Your task to perform on an android device: move an email to a new category in the gmail app Image 0: 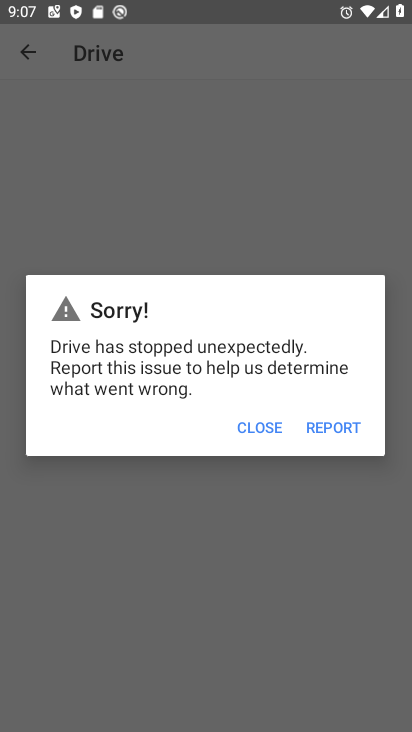
Step 0: press home button
Your task to perform on an android device: move an email to a new category in the gmail app Image 1: 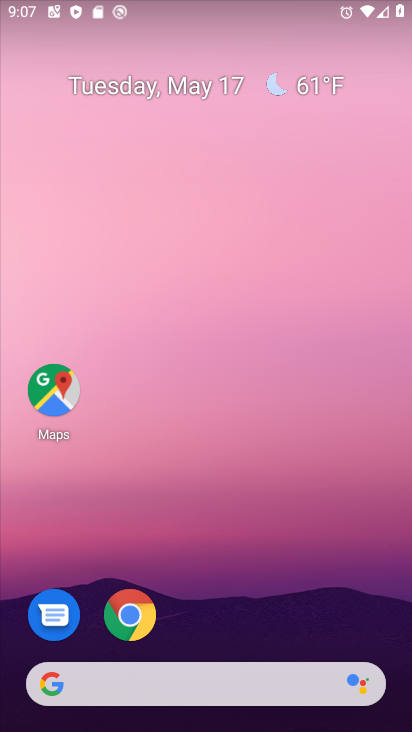
Step 1: drag from (307, 641) to (268, 5)
Your task to perform on an android device: move an email to a new category in the gmail app Image 2: 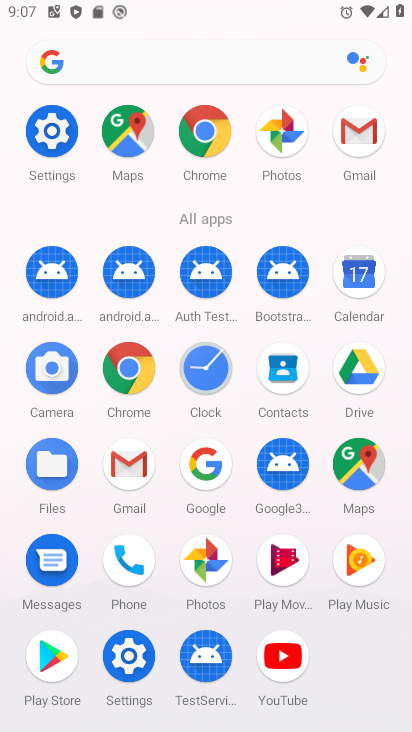
Step 2: click (131, 458)
Your task to perform on an android device: move an email to a new category in the gmail app Image 3: 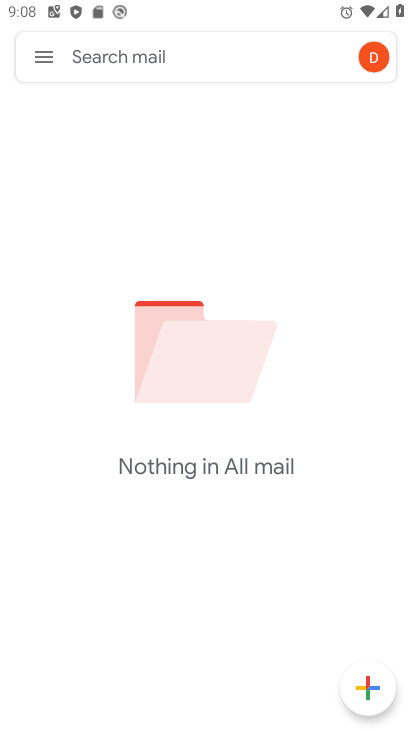
Step 3: task complete